Your task to perform on an android device: turn off location history Image 0: 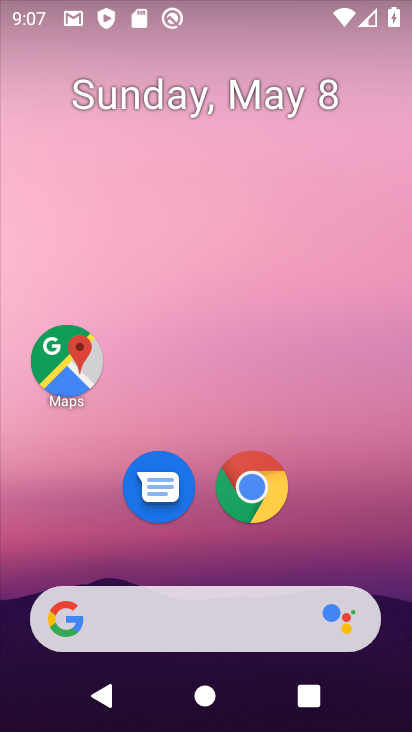
Step 0: drag from (314, 547) to (264, 22)
Your task to perform on an android device: turn off location history Image 1: 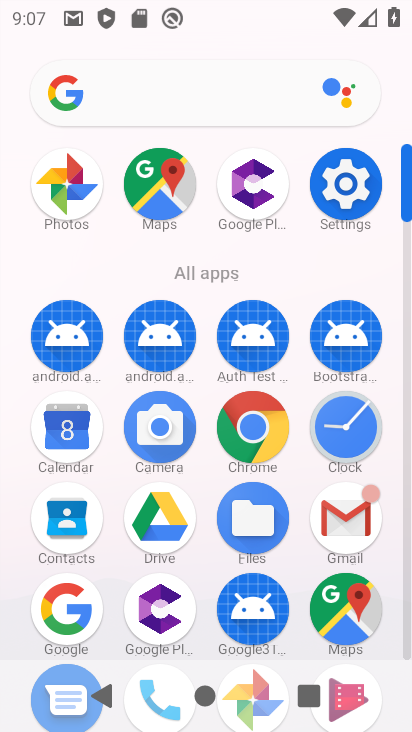
Step 1: click (352, 182)
Your task to perform on an android device: turn off location history Image 2: 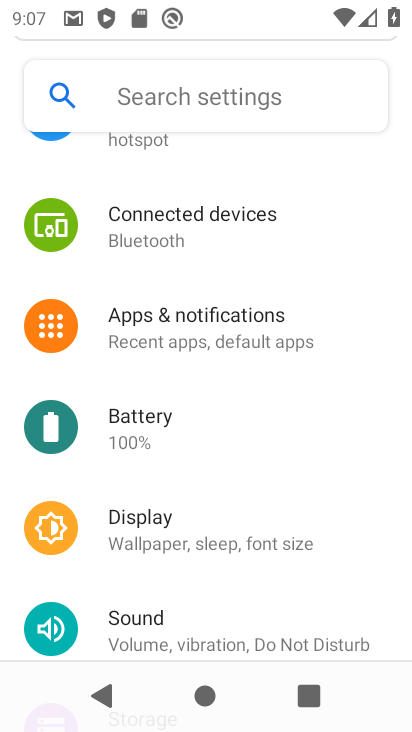
Step 2: drag from (216, 590) to (244, 81)
Your task to perform on an android device: turn off location history Image 3: 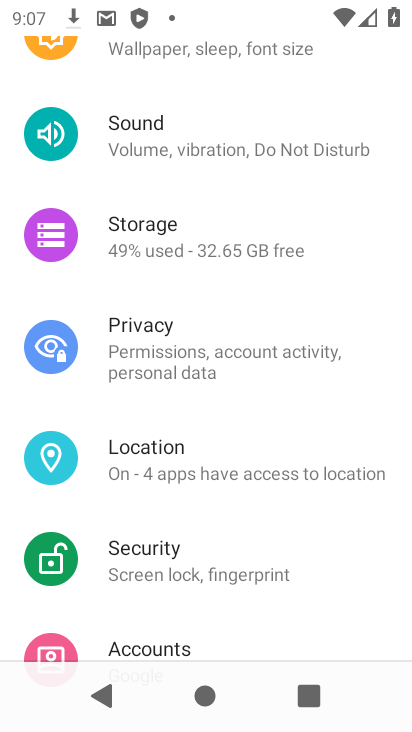
Step 3: click (214, 477)
Your task to perform on an android device: turn off location history Image 4: 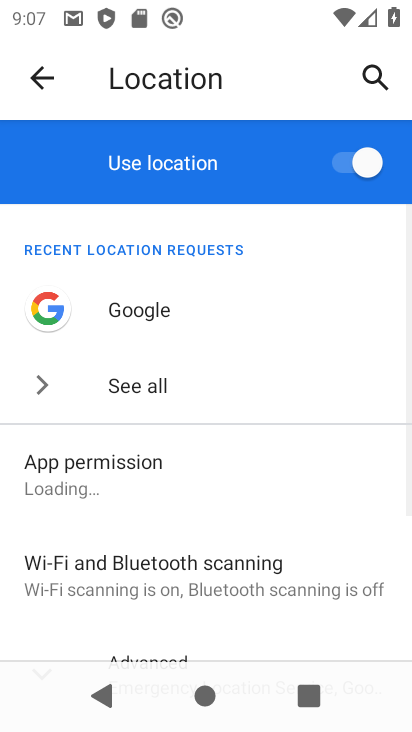
Step 4: click (343, 155)
Your task to perform on an android device: turn off location history Image 5: 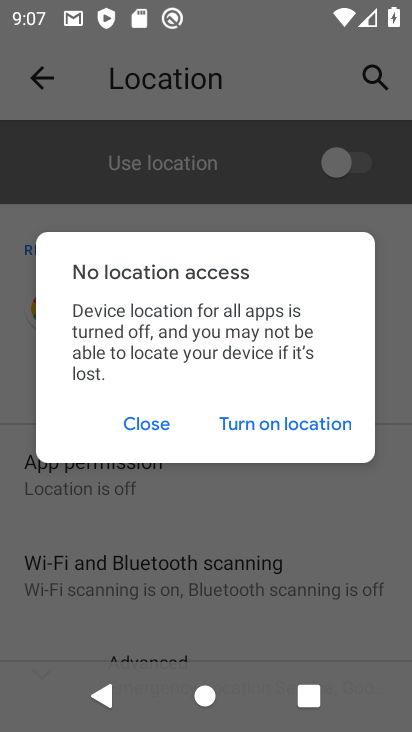
Step 5: task complete